Your task to perform on an android device: change notification settings in the gmail app Image 0: 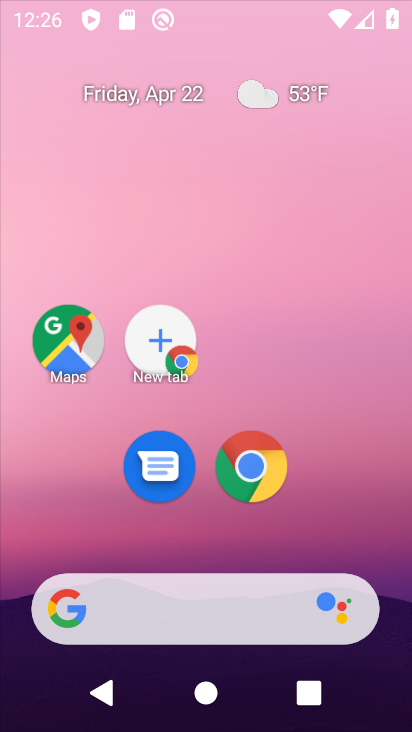
Step 0: drag from (391, 586) to (262, 42)
Your task to perform on an android device: change notification settings in the gmail app Image 1: 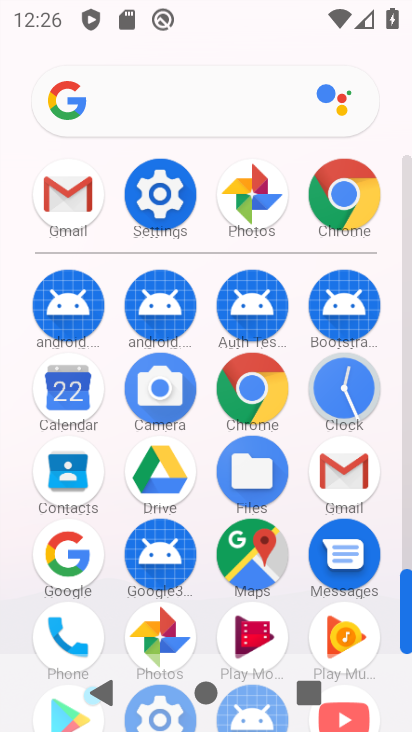
Step 1: drag from (13, 592) to (7, 319)
Your task to perform on an android device: change notification settings in the gmail app Image 2: 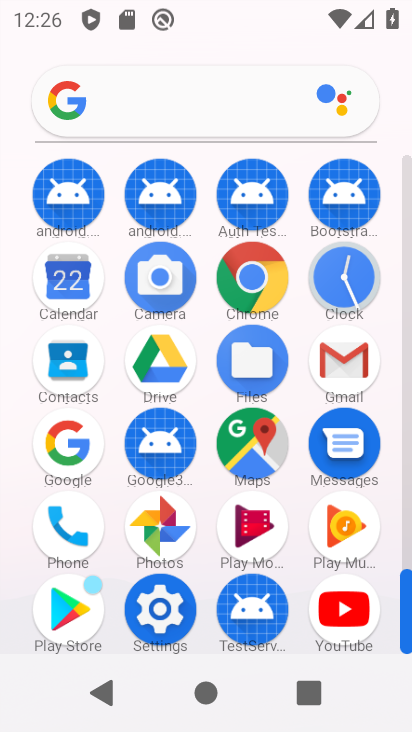
Step 2: click (343, 357)
Your task to perform on an android device: change notification settings in the gmail app Image 3: 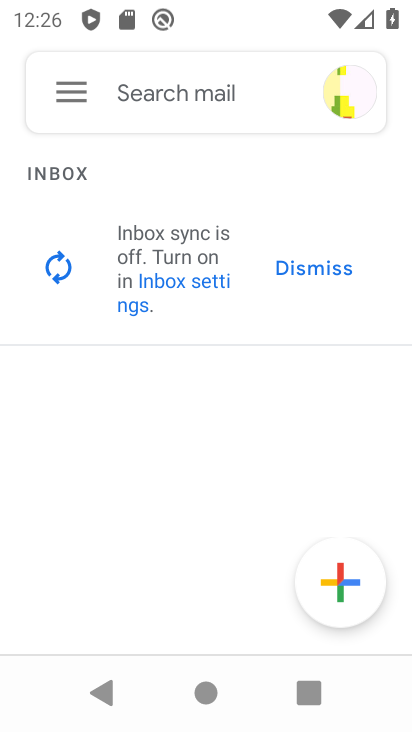
Step 3: click (80, 102)
Your task to perform on an android device: change notification settings in the gmail app Image 4: 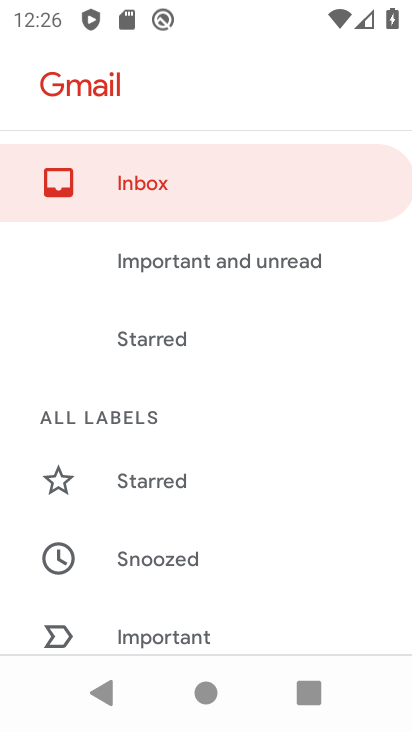
Step 4: drag from (276, 526) to (273, 180)
Your task to perform on an android device: change notification settings in the gmail app Image 5: 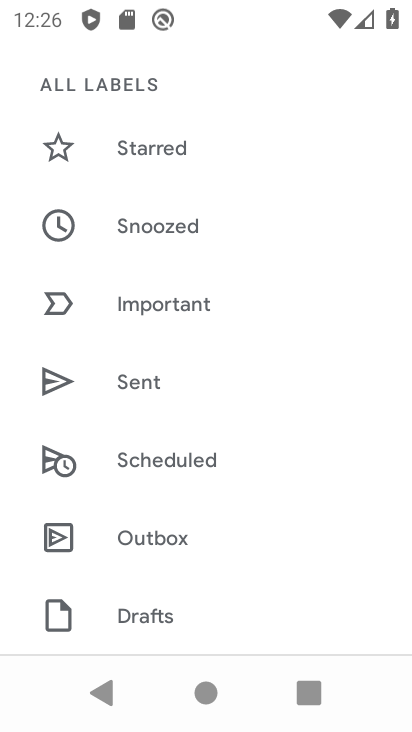
Step 5: drag from (274, 533) to (266, 198)
Your task to perform on an android device: change notification settings in the gmail app Image 6: 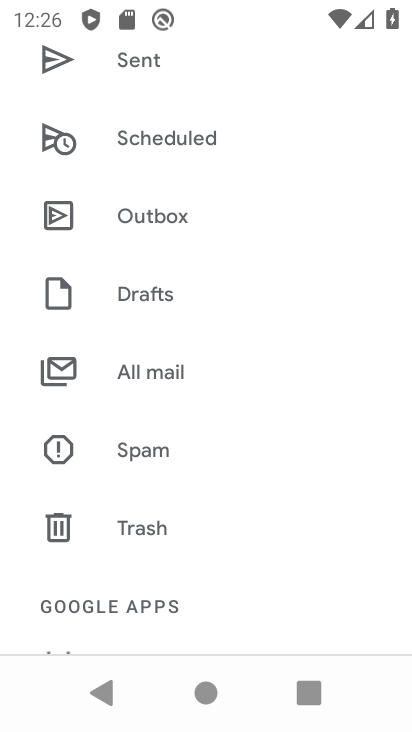
Step 6: drag from (302, 504) to (296, 203)
Your task to perform on an android device: change notification settings in the gmail app Image 7: 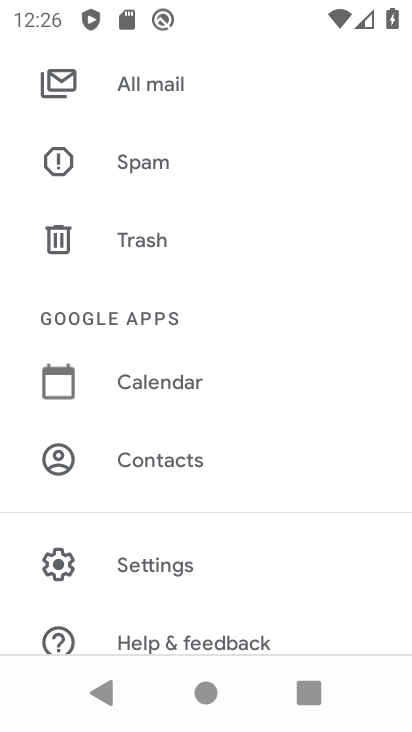
Step 7: drag from (252, 582) to (258, 236)
Your task to perform on an android device: change notification settings in the gmail app Image 8: 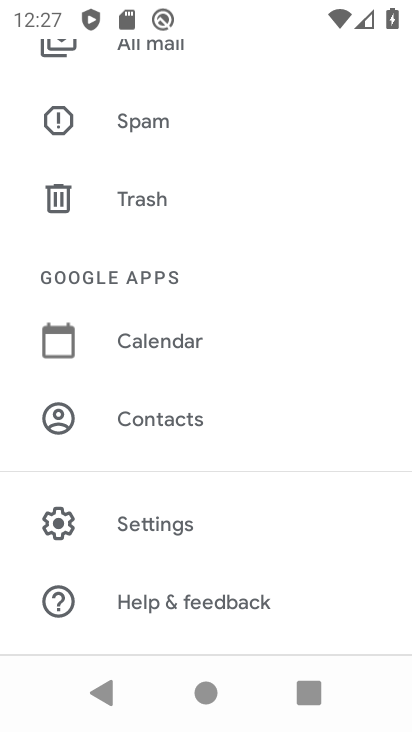
Step 8: click (162, 520)
Your task to perform on an android device: change notification settings in the gmail app Image 9: 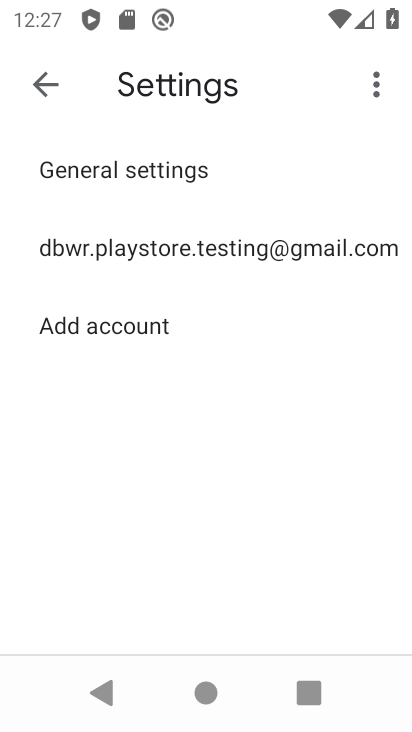
Step 9: click (166, 239)
Your task to perform on an android device: change notification settings in the gmail app Image 10: 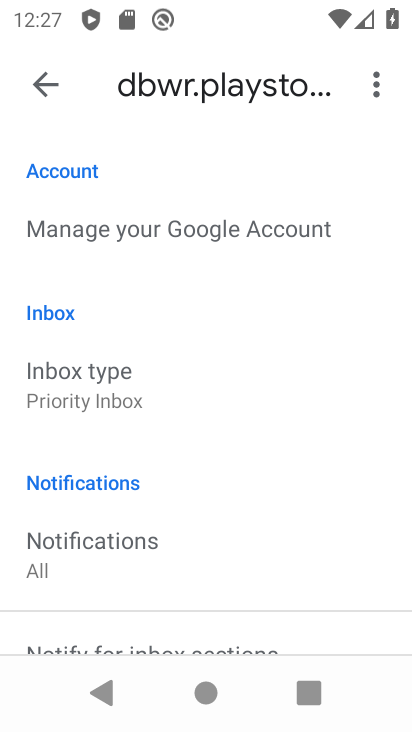
Step 10: drag from (250, 500) to (268, 205)
Your task to perform on an android device: change notification settings in the gmail app Image 11: 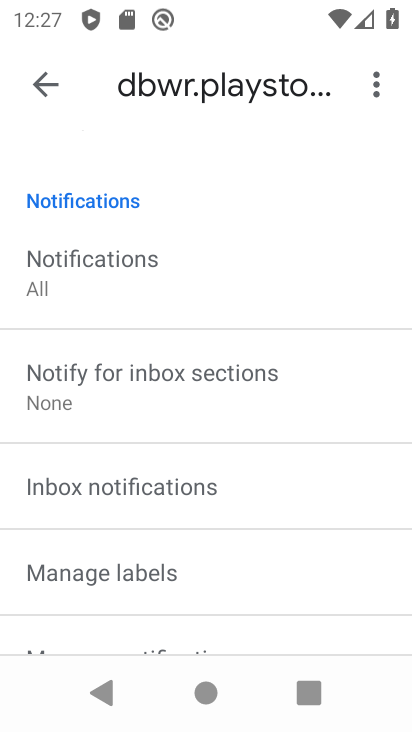
Step 11: drag from (226, 493) to (249, 199)
Your task to perform on an android device: change notification settings in the gmail app Image 12: 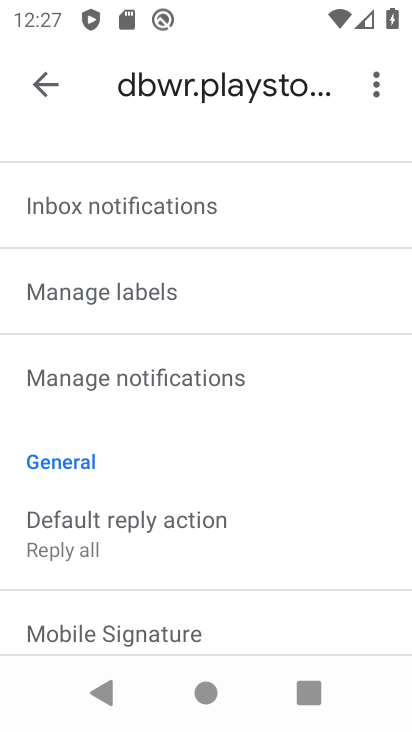
Step 12: click (208, 376)
Your task to perform on an android device: change notification settings in the gmail app Image 13: 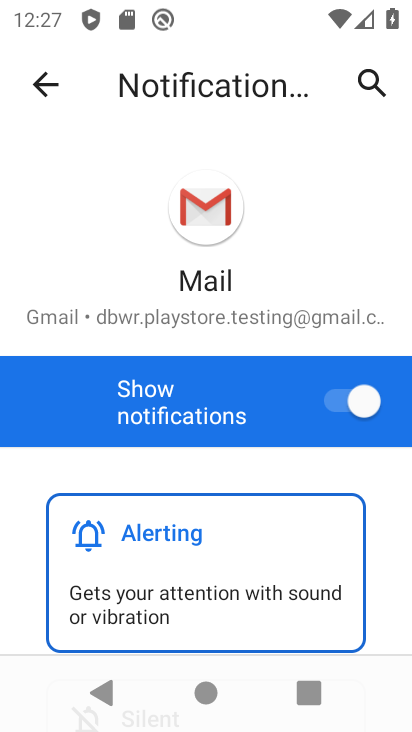
Step 13: click (350, 381)
Your task to perform on an android device: change notification settings in the gmail app Image 14: 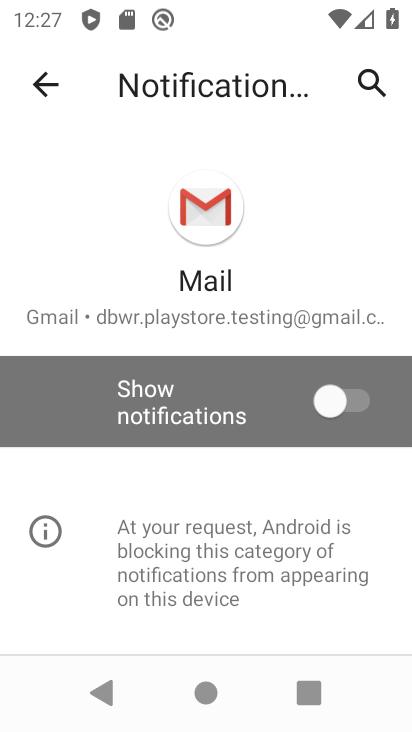
Step 14: task complete